Your task to perform on an android device: Search for razer blade on newegg, select the first entry, and add it to the cart. Image 0: 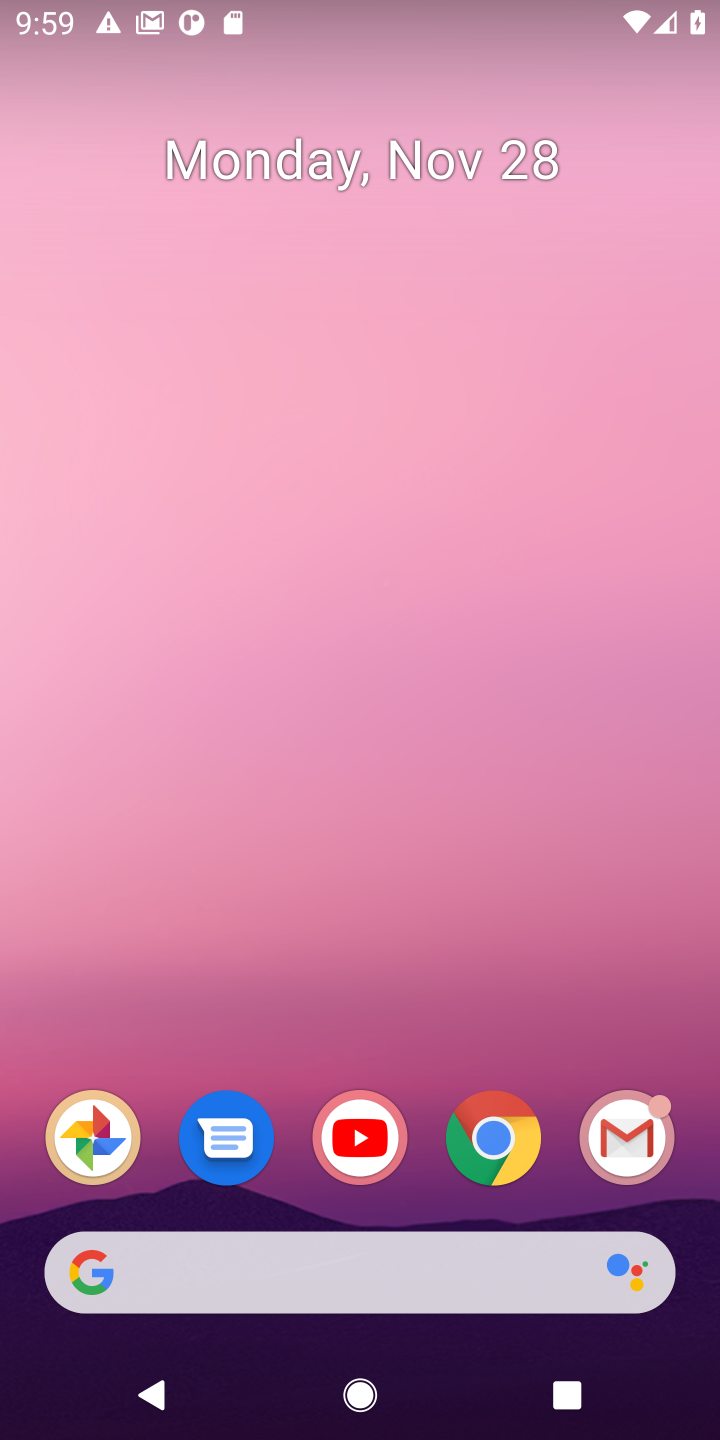
Step 0: click (479, 1115)
Your task to perform on an android device: Search for razer blade on newegg, select the first entry, and add it to the cart. Image 1: 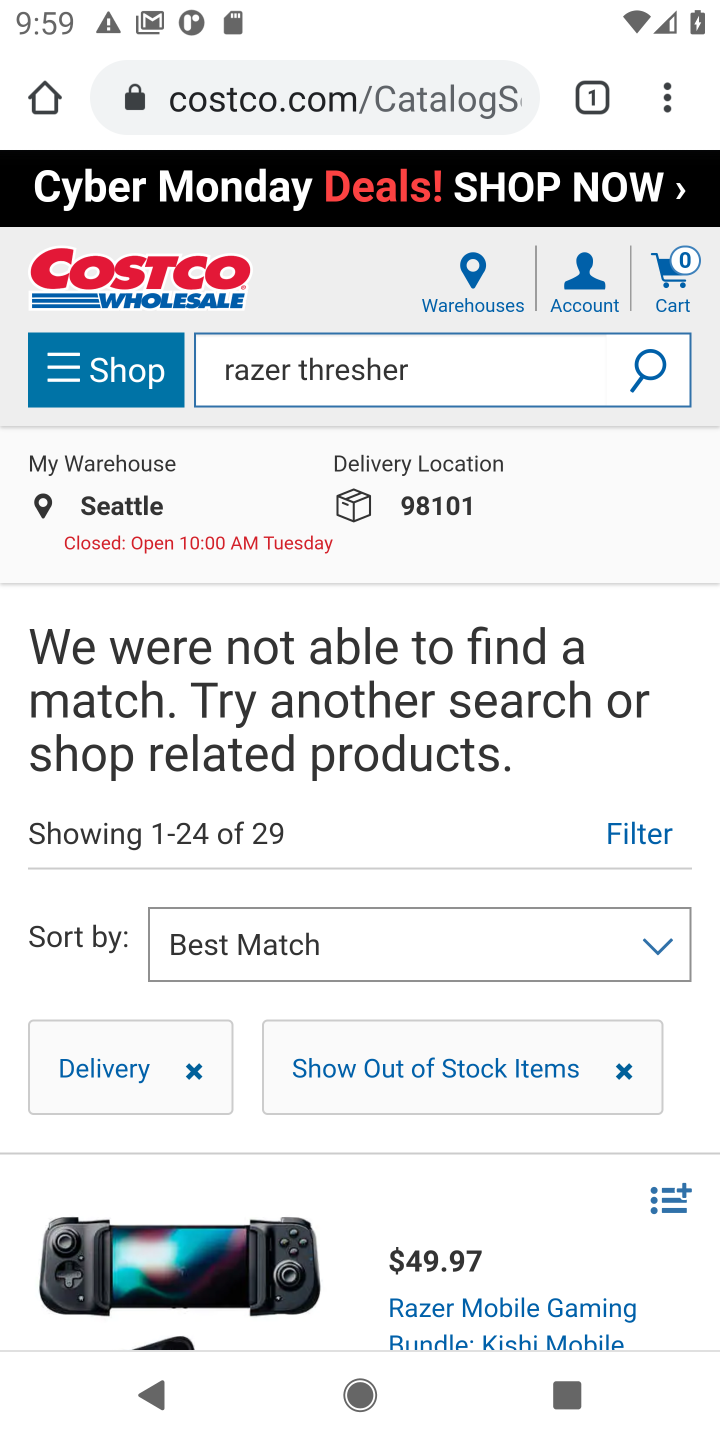
Step 1: click (268, 107)
Your task to perform on an android device: Search for razer blade on newegg, select the first entry, and add it to the cart. Image 2: 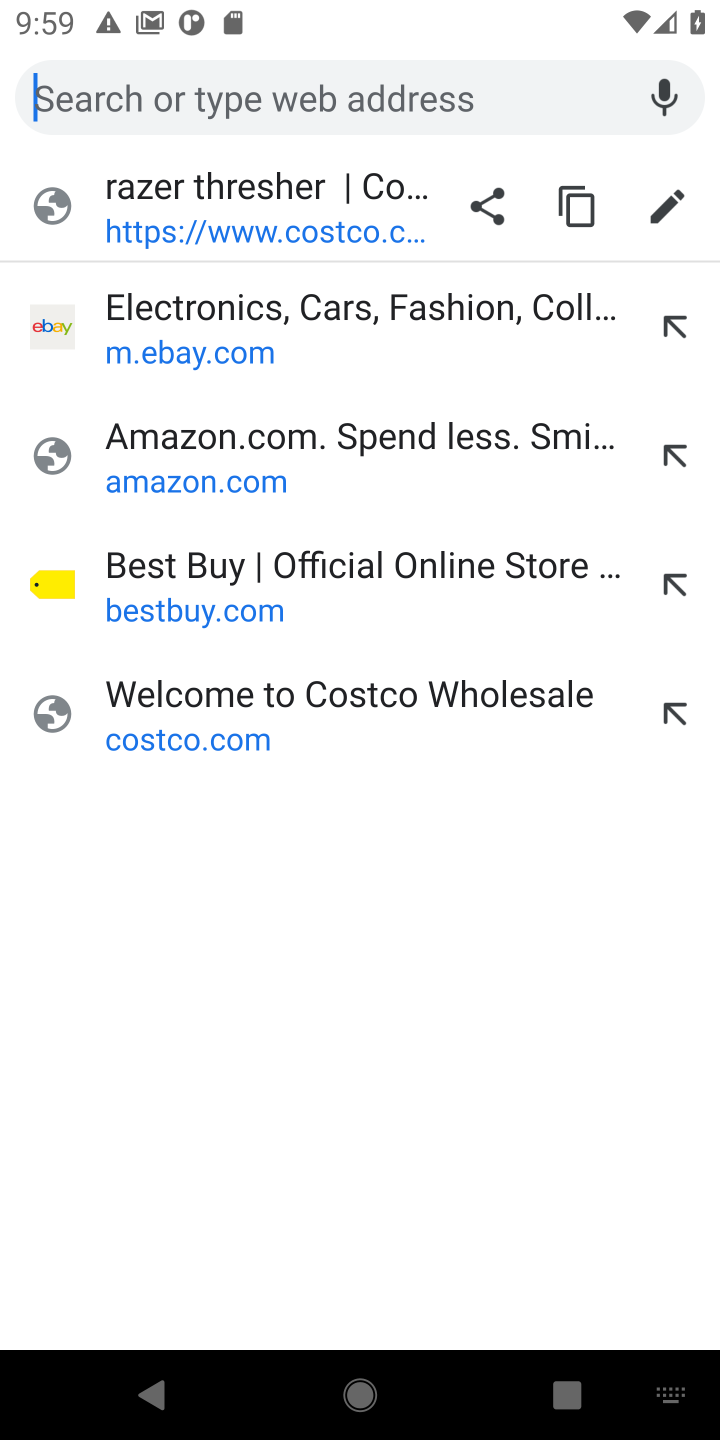
Step 2: type "newegg.com"
Your task to perform on an android device: Search for razer blade on newegg, select the first entry, and add it to the cart. Image 3: 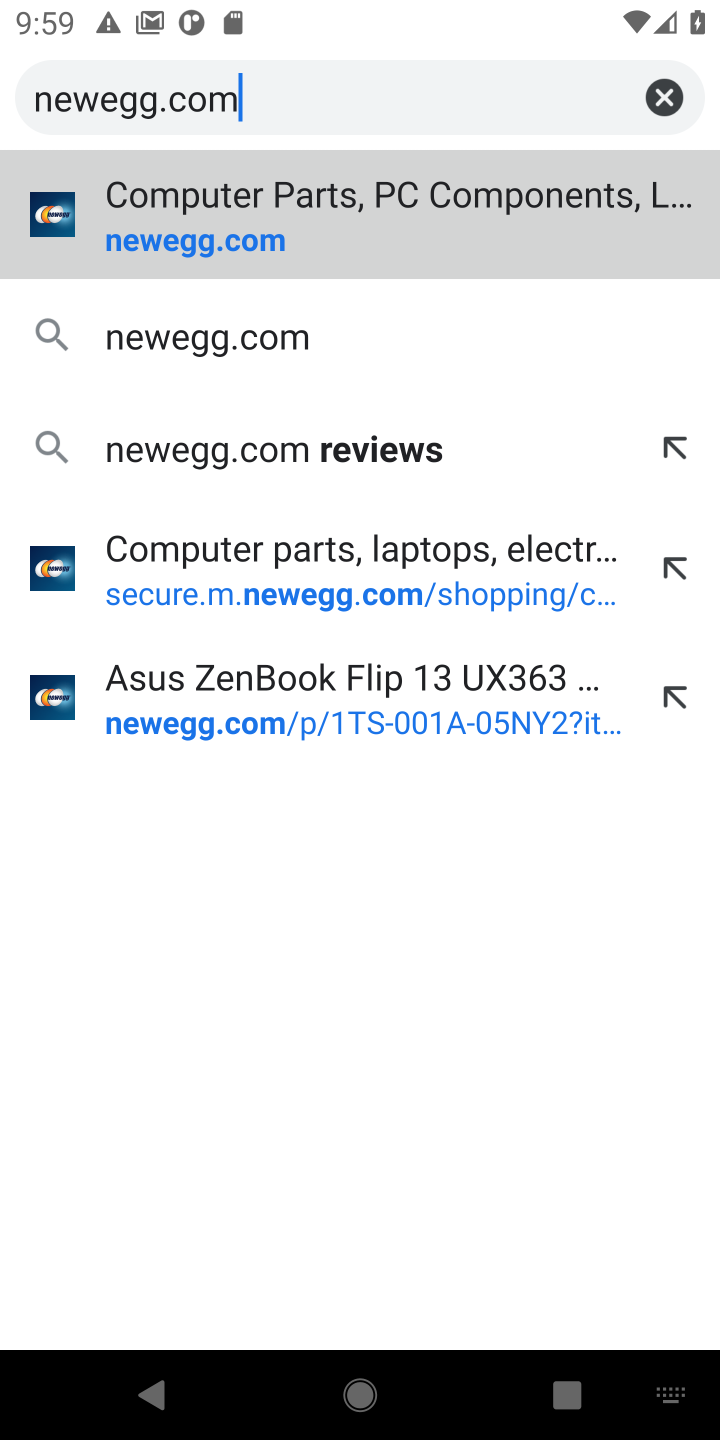
Step 3: click (137, 251)
Your task to perform on an android device: Search for razer blade on newegg, select the first entry, and add it to the cart. Image 4: 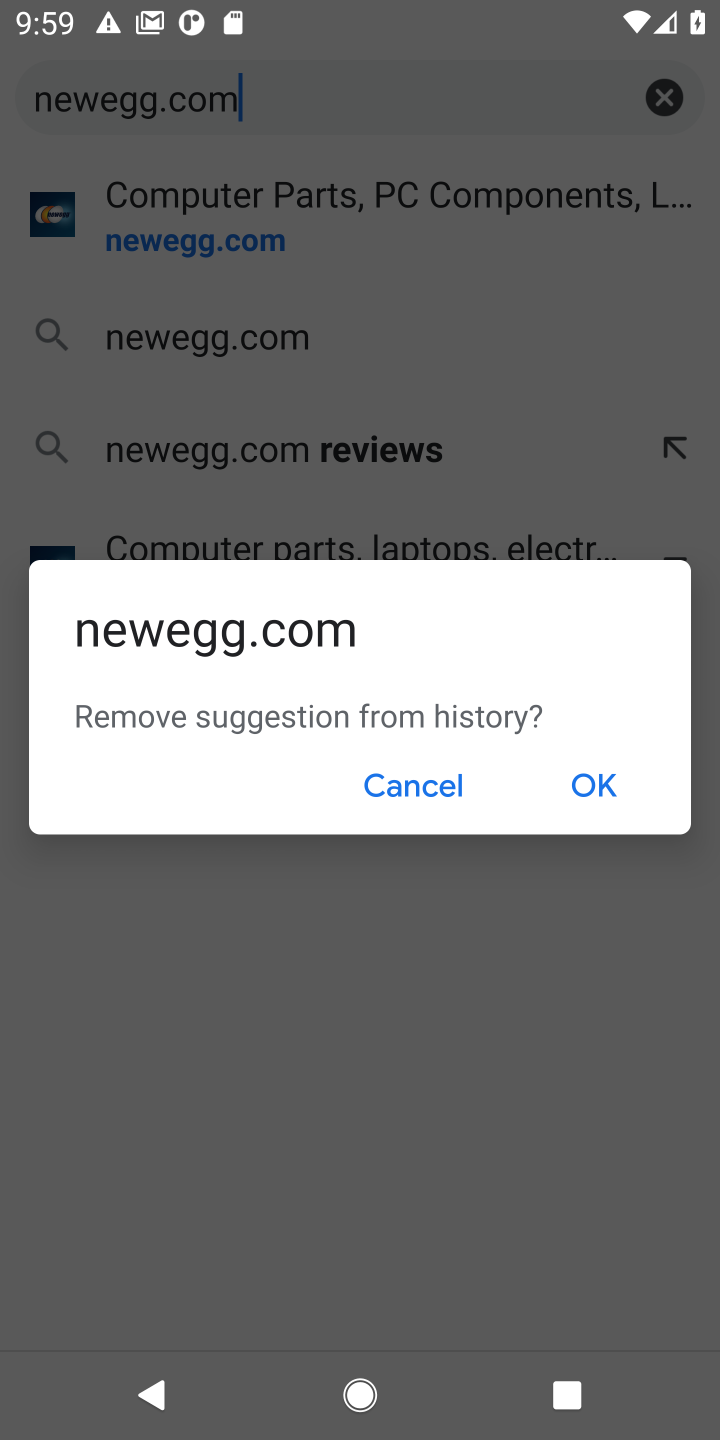
Step 4: click (414, 792)
Your task to perform on an android device: Search for razer blade on newegg, select the first entry, and add it to the cart. Image 5: 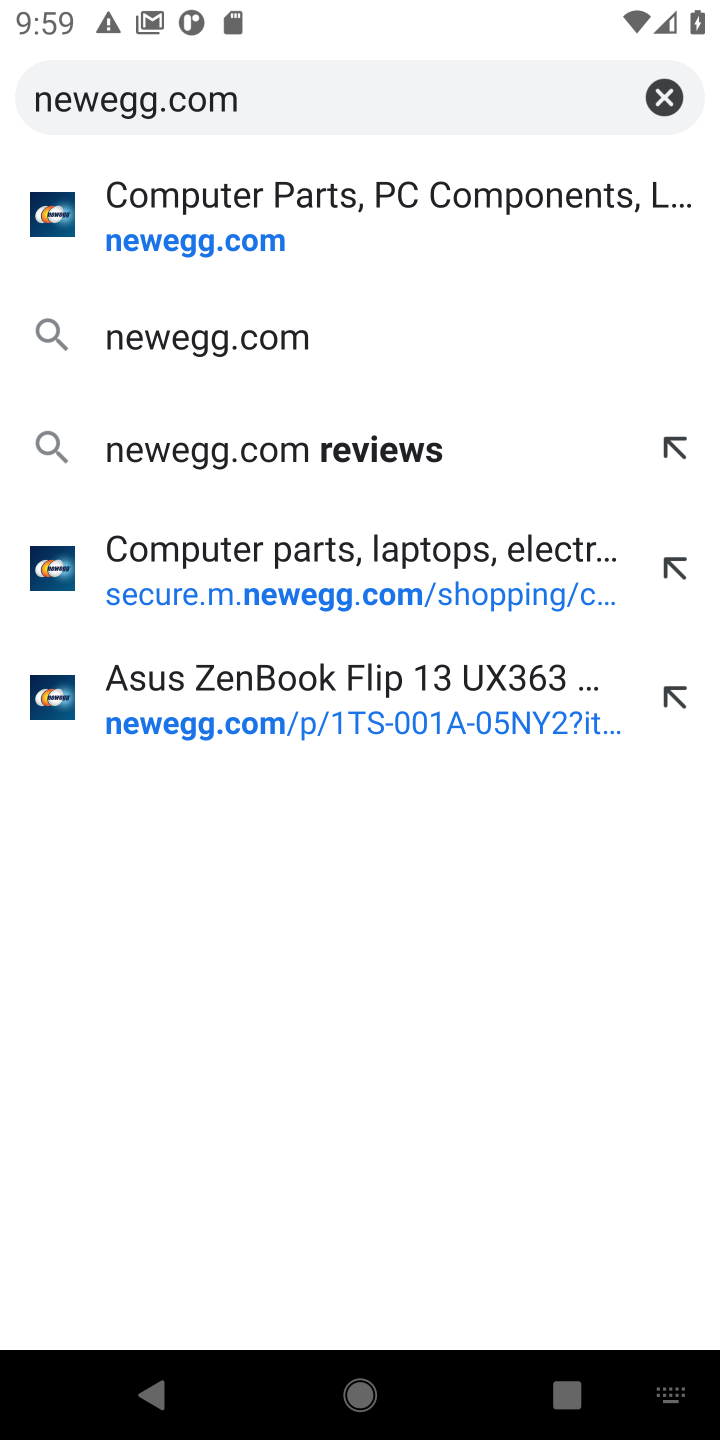
Step 5: click (212, 245)
Your task to perform on an android device: Search for razer blade on newegg, select the first entry, and add it to the cart. Image 6: 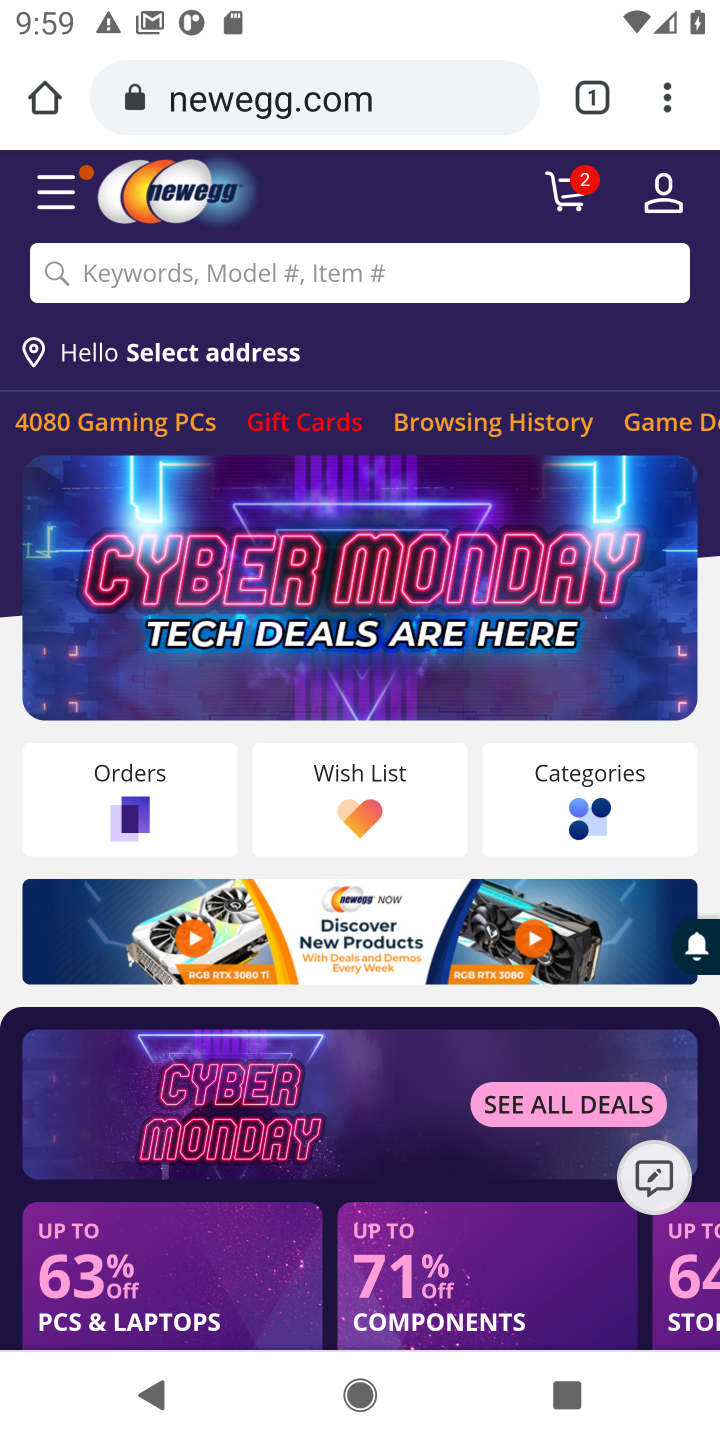
Step 6: click (242, 265)
Your task to perform on an android device: Search for razer blade on newegg, select the first entry, and add it to the cart. Image 7: 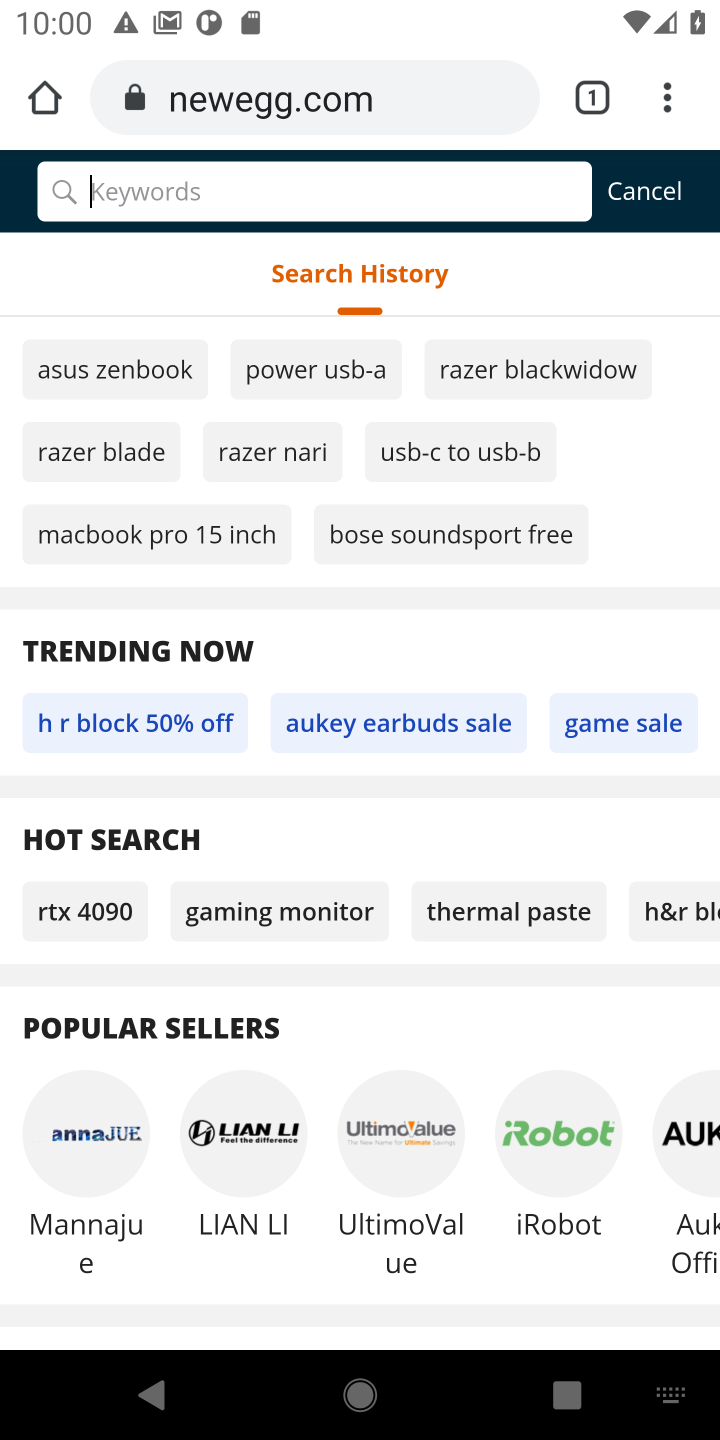
Step 7: type "razer blade"
Your task to perform on an android device: Search for razer blade on newegg, select the first entry, and add it to the cart. Image 8: 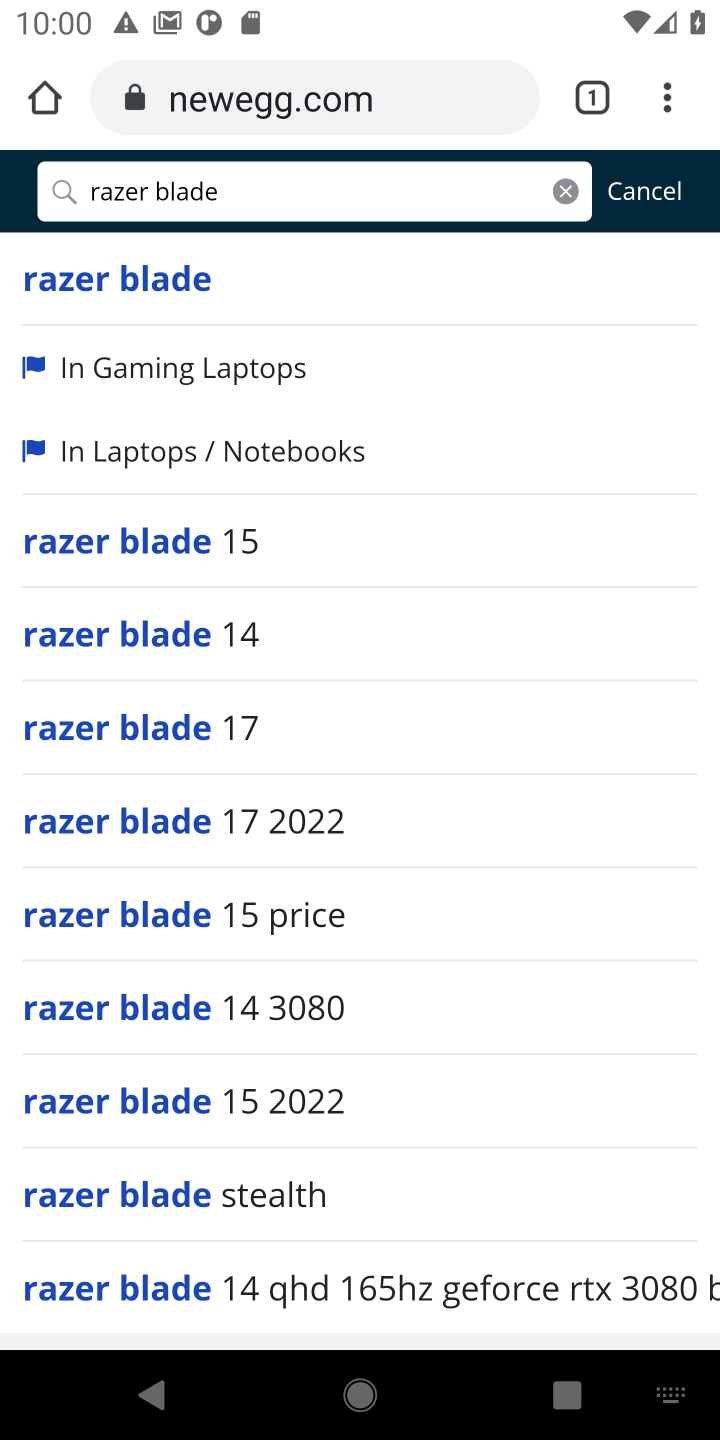
Step 8: click (69, 276)
Your task to perform on an android device: Search for razer blade on newegg, select the first entry, and add it to the cart. Image 9: 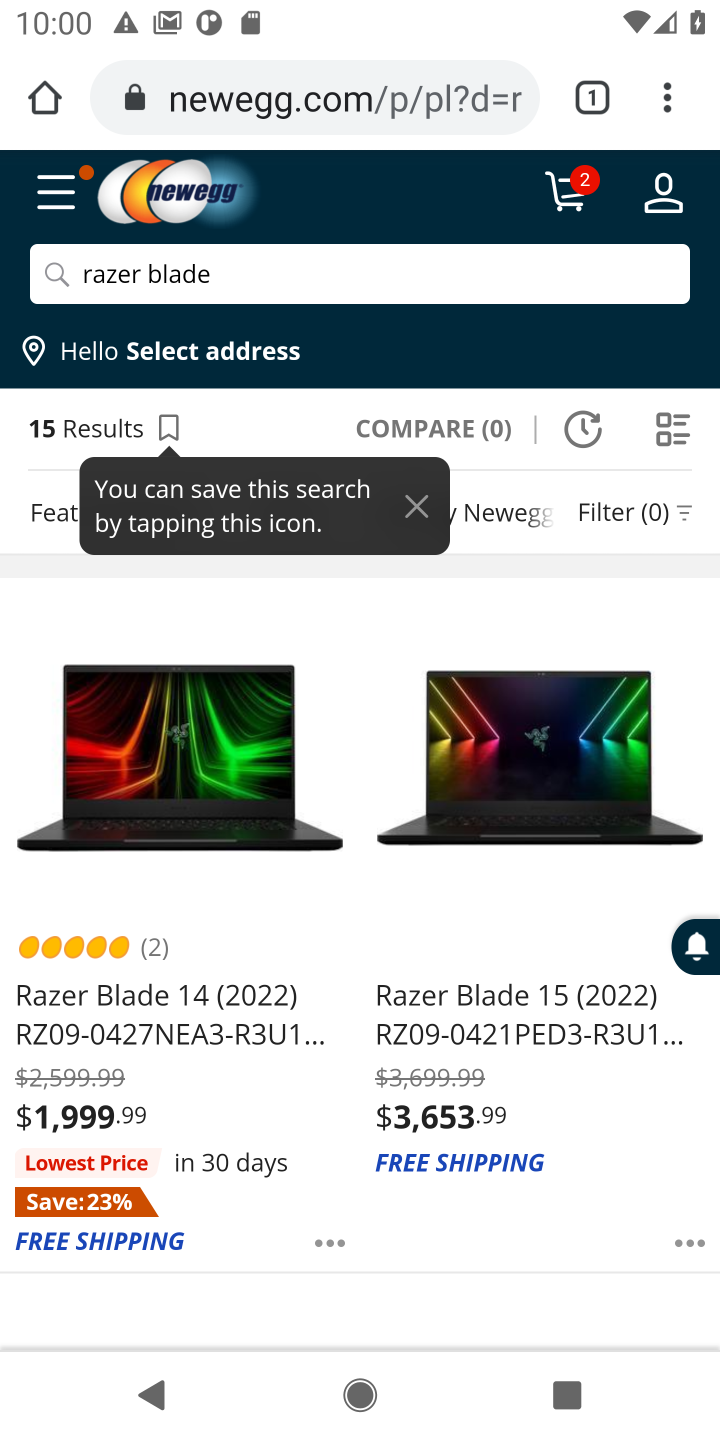
Step 9: click (101, 984)
Your task to perform on an android device: Search for razer blade on newegg, select the first entry, and add it to the cart. Image 10: 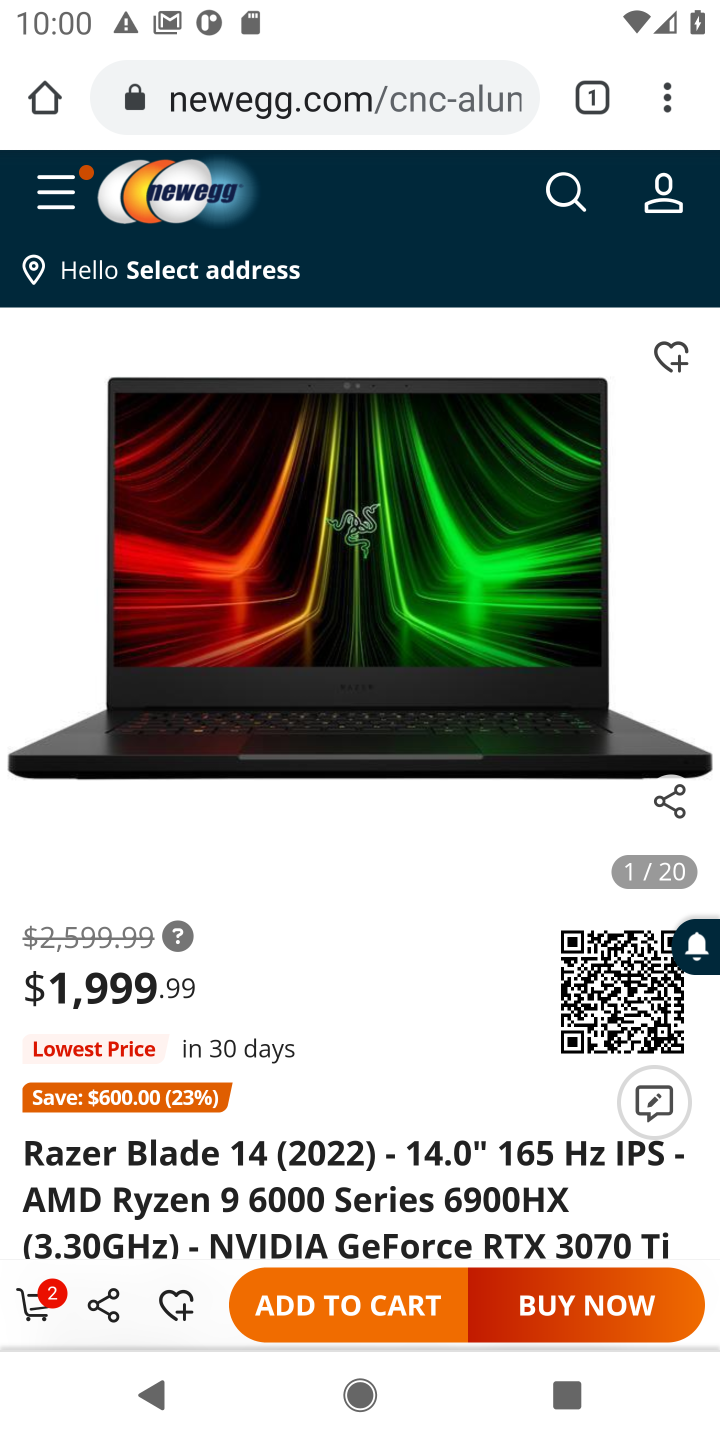
Step 10: click (345, 1312)
Your task to perform on an android device: Search for razer blade on newegg, select the first entry, and add it to the cart. Image 11: 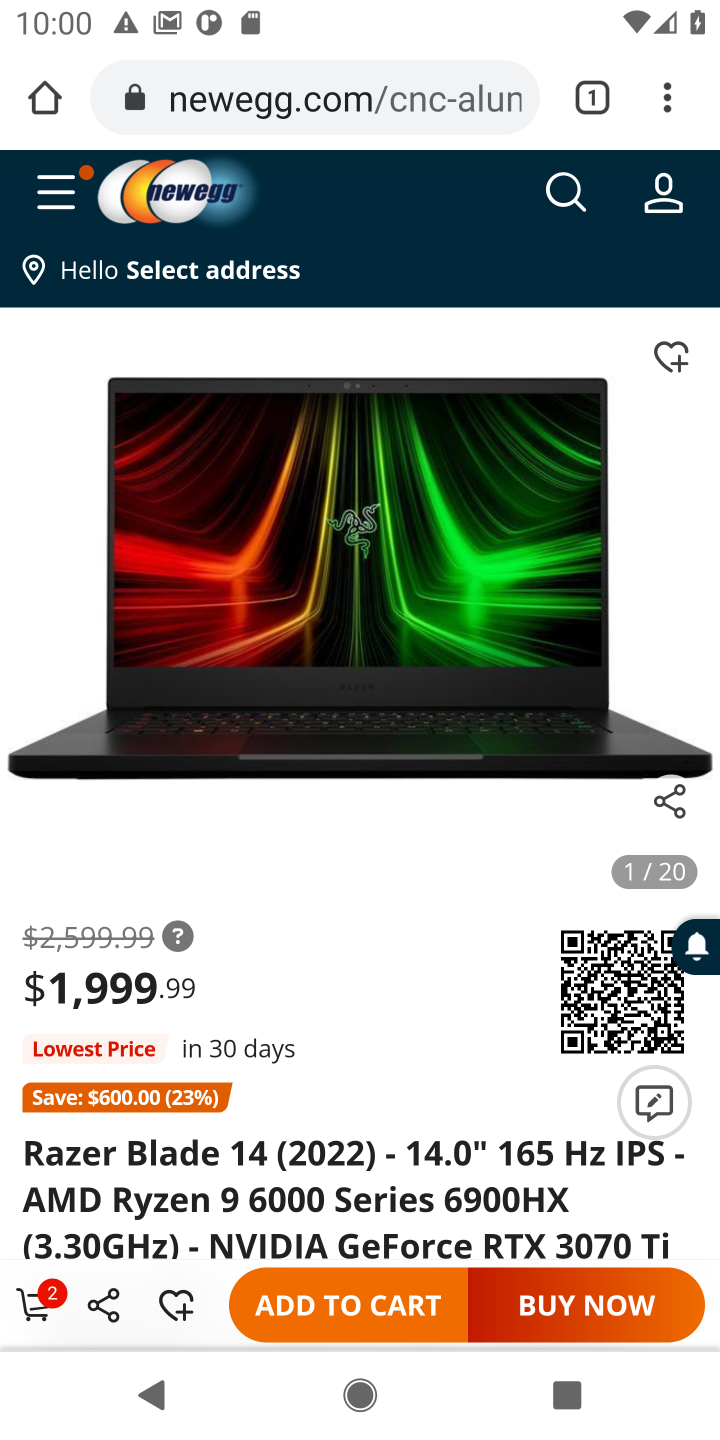
Step 11: click (345, 1312)
Your task to perform on an android device: Search for razer blade on newegg, select the first entry, and add it to the cart. Image 12: 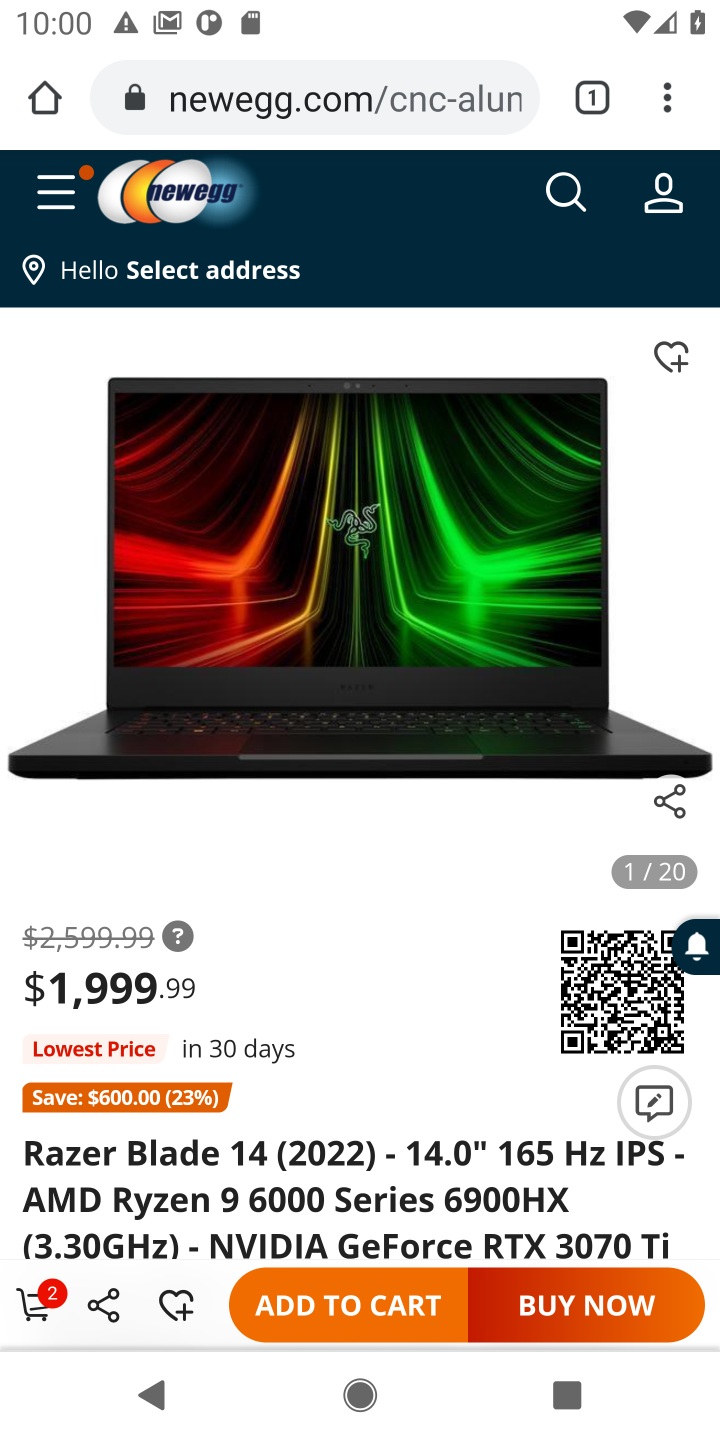
Step 12: click (345, 1312)
Your task to perform on an android device: Search for razer blade on newegg, select the first entry, and add it to the cart. Image 13: 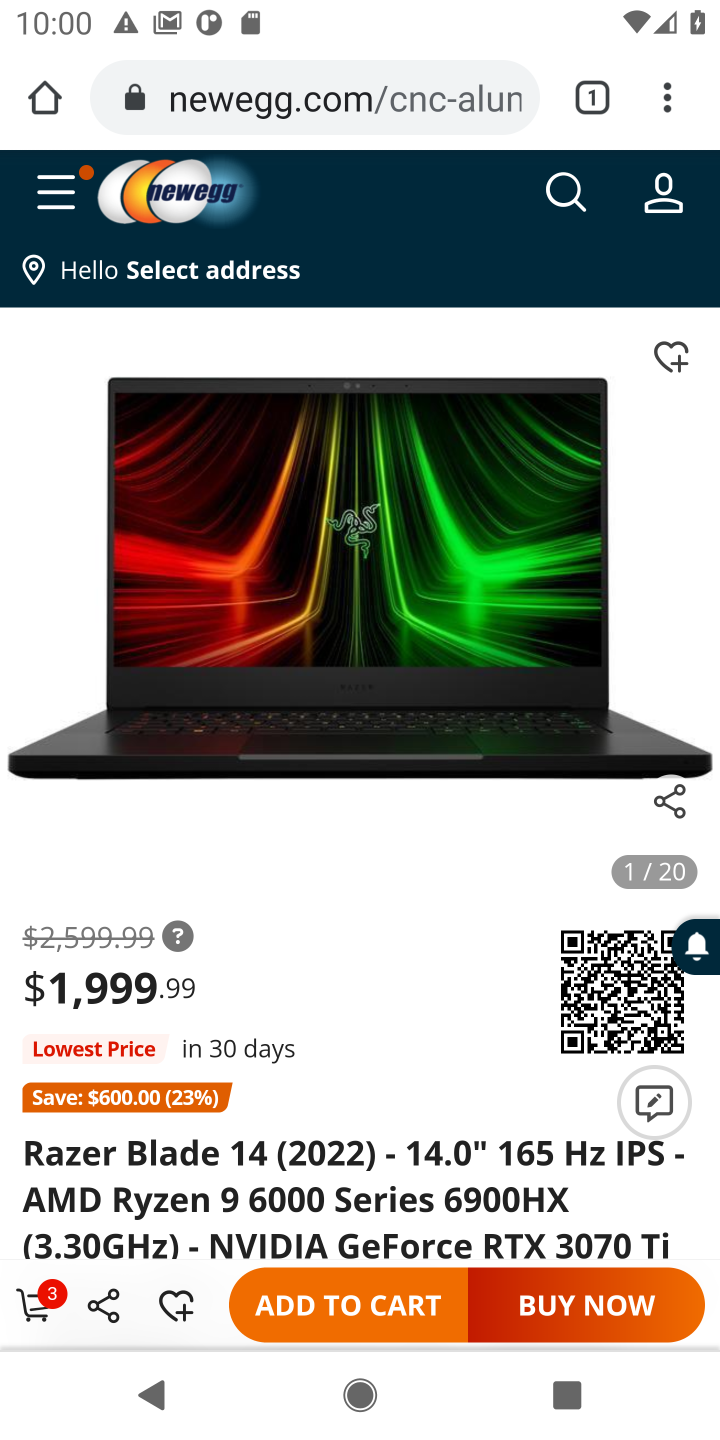
Step 13: task complete